Your task to perform on an android device: change alarm snooze length Image 0: 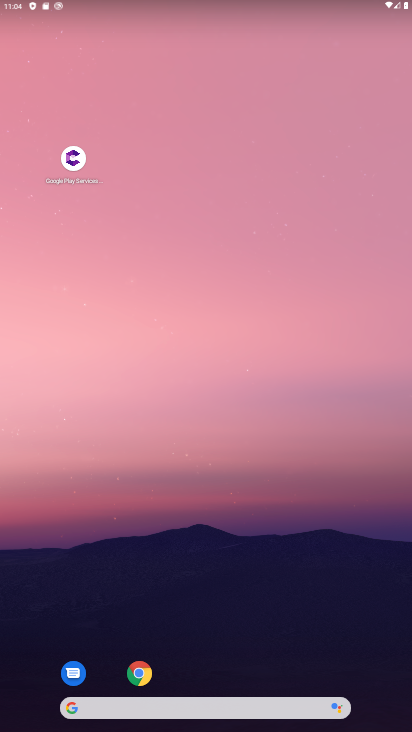
Step 0: drag from (299, 648) to (129, 121)
Your task to perform on an android device: change alarm snooze length Image 1: 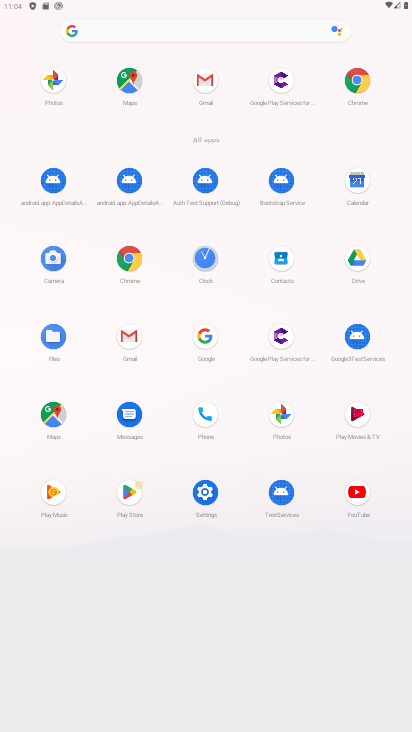
Step 1: click (205, 266)
Your task to perform on an android device: change alarm snooze length Image 2: 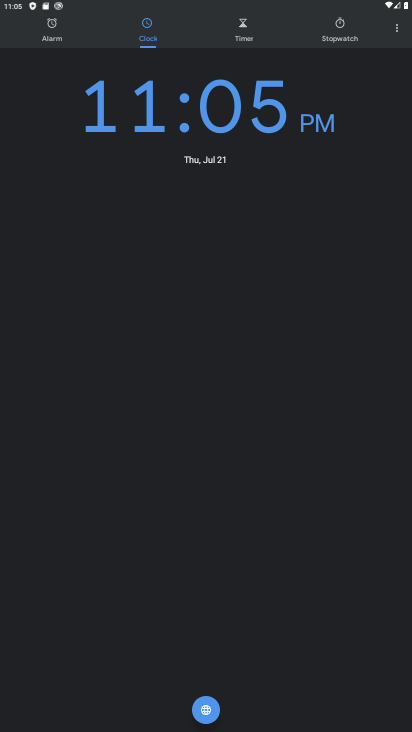
Step 2: click (385, 16)
Your task to perform on an android device: change alarm snooze length Image 3: 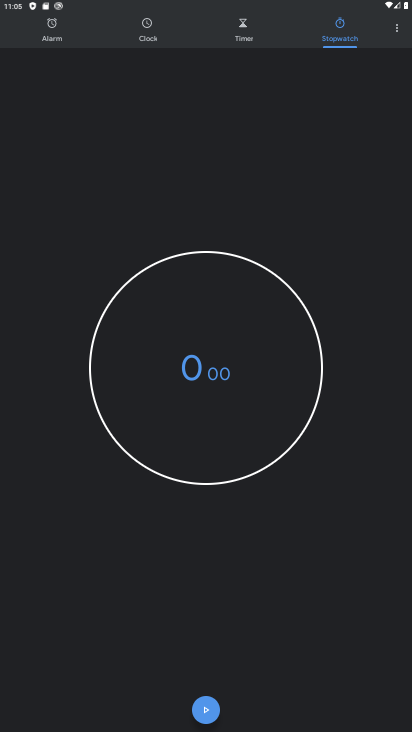
Step 3: click (400, 35)
Your task to perform on an android device: change alarm snooze length Image 4: 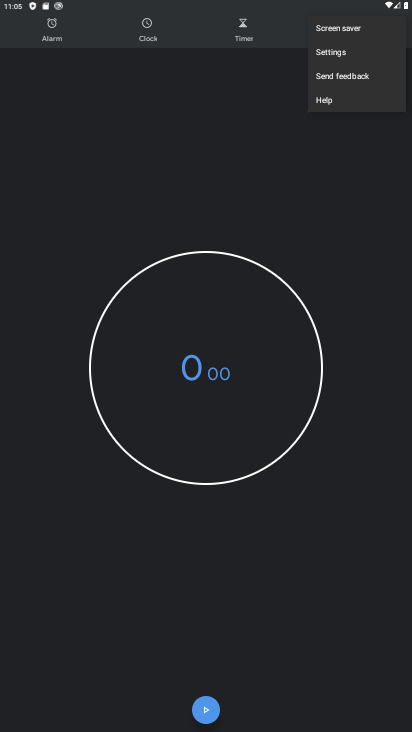
Step 4: click (323, 52)
Your task to perform on an android device: change alarm snooze length Image 5: 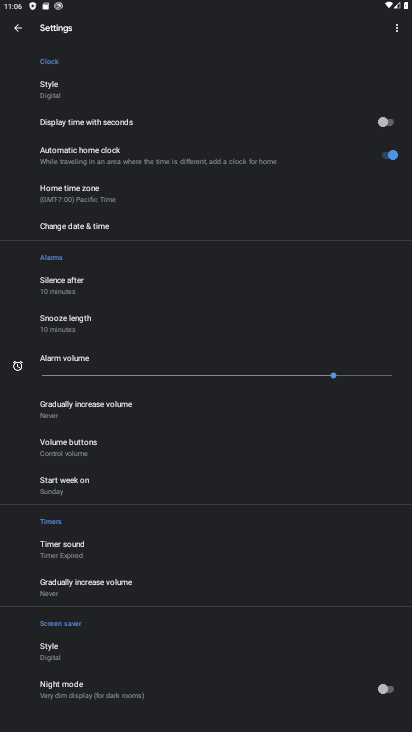
Step 5: click (58, 323)
Your task to perform on an android device: change alarm snooze length Image 6: 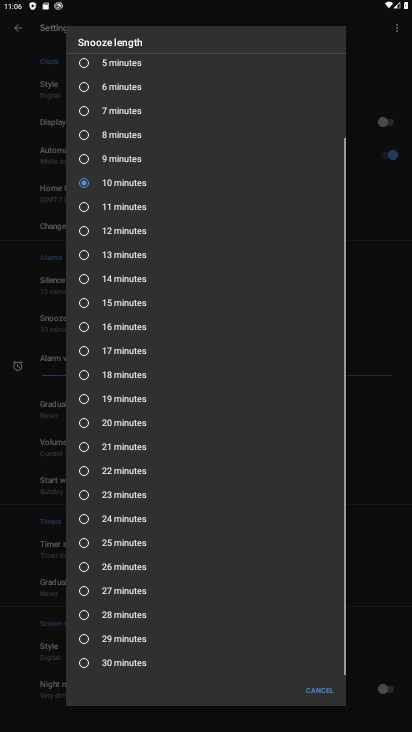
Step 6: click (120, 359)
Your task to perform on an android device: change alarm snooze length Image 7: 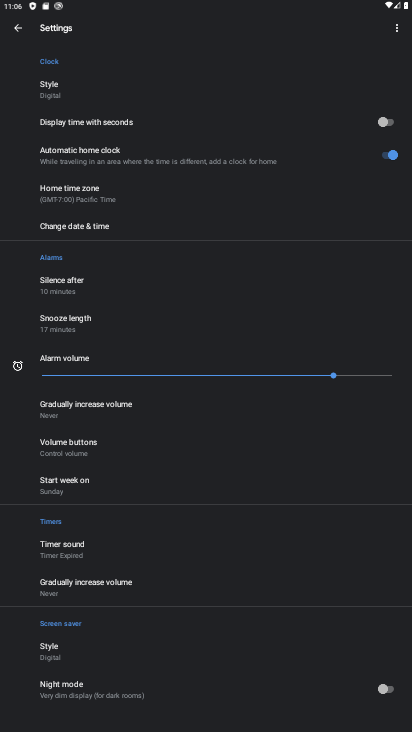
Step 7: task complete